Your task to perform on an android device: Go to eBay Image 0: 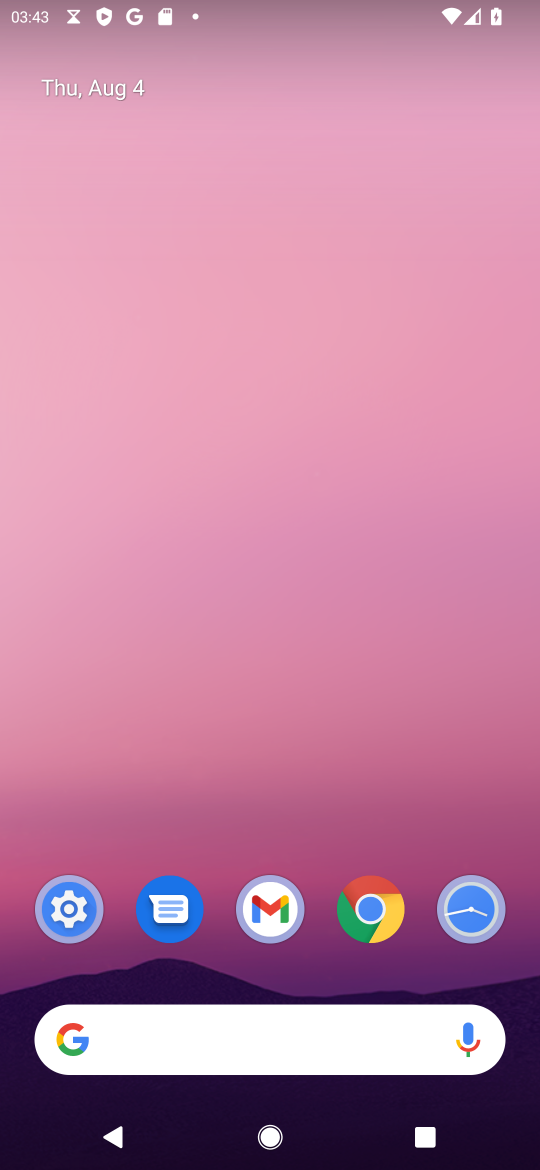
Step 0: click (370, 911)
Your task to perform on an android device: Go to eBay Image 1: 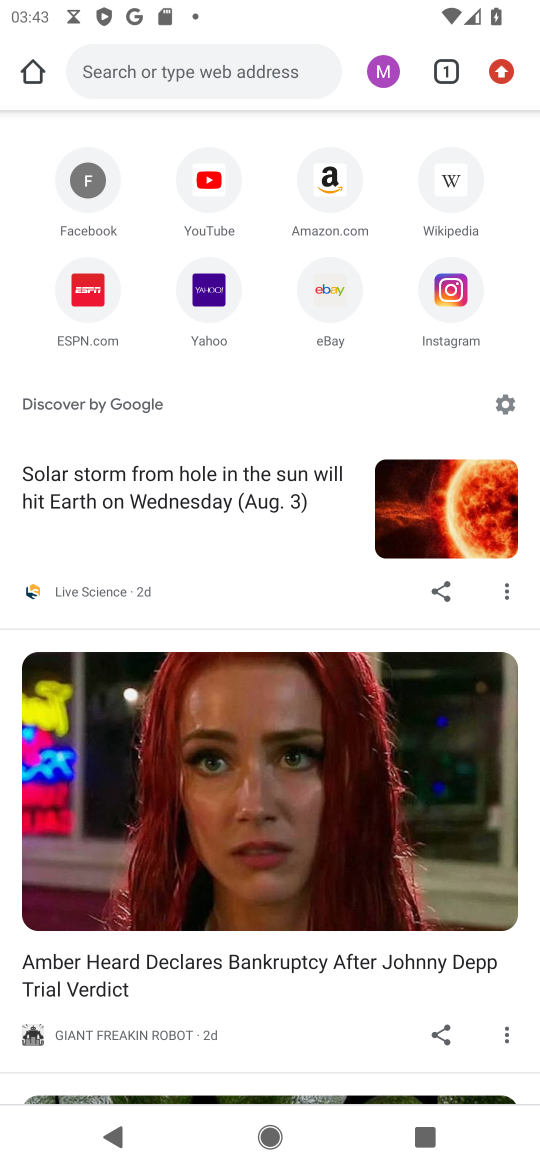
Step 1: drag from (441, 839) to (537, 524)
Your task to perform on an android device: Go to eBay Image 2: 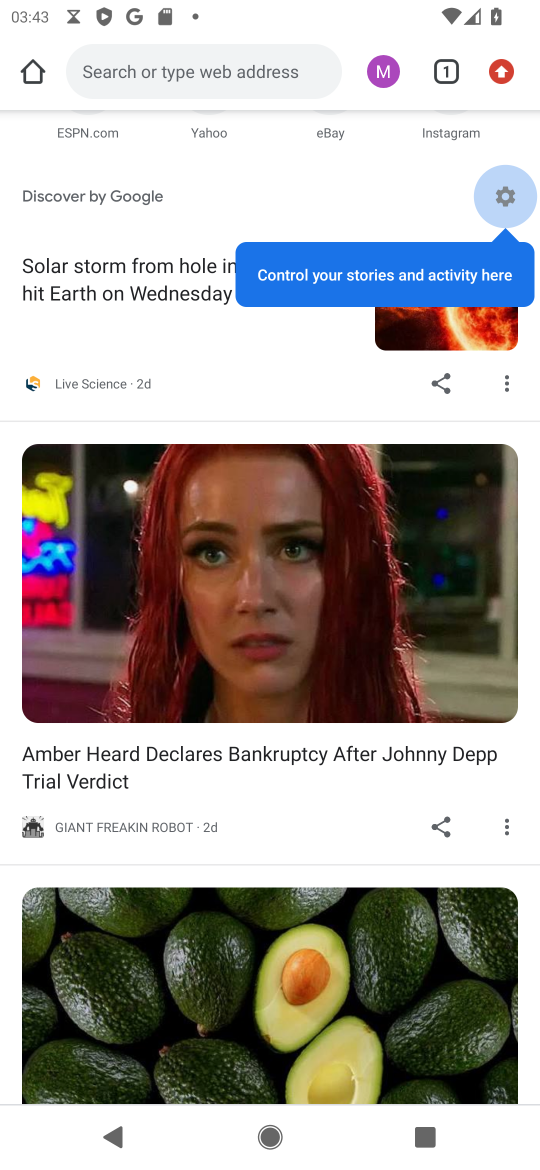
Step 2: drag from (268, 490) to (111, 781)
Your task to perform on an android device: Go to eBay Image 3: 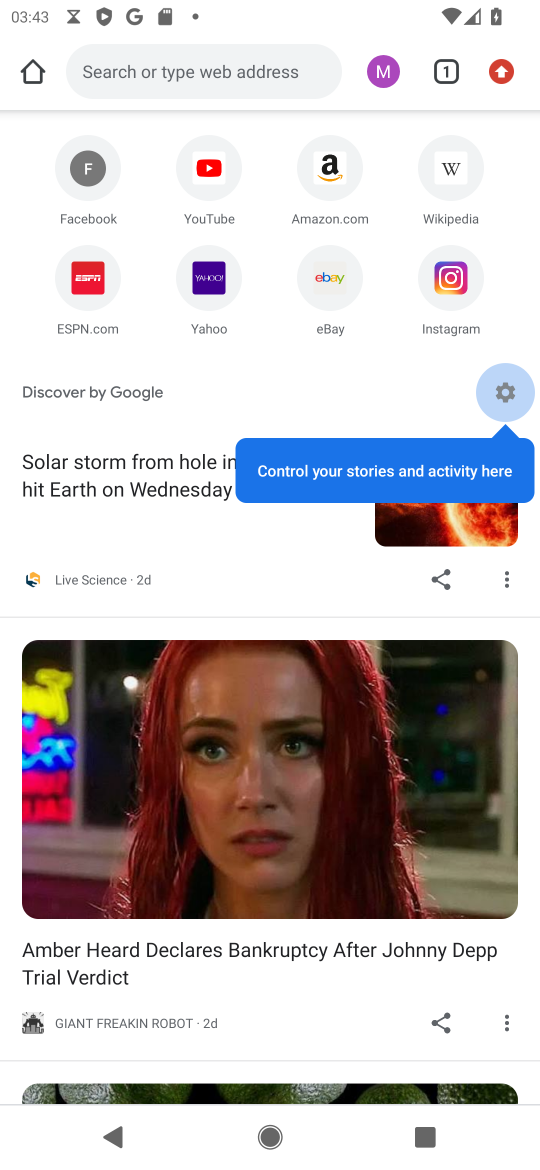
Step 3: click (331, 262)
Your task to perform on an android device: Go to eBay Image 4: 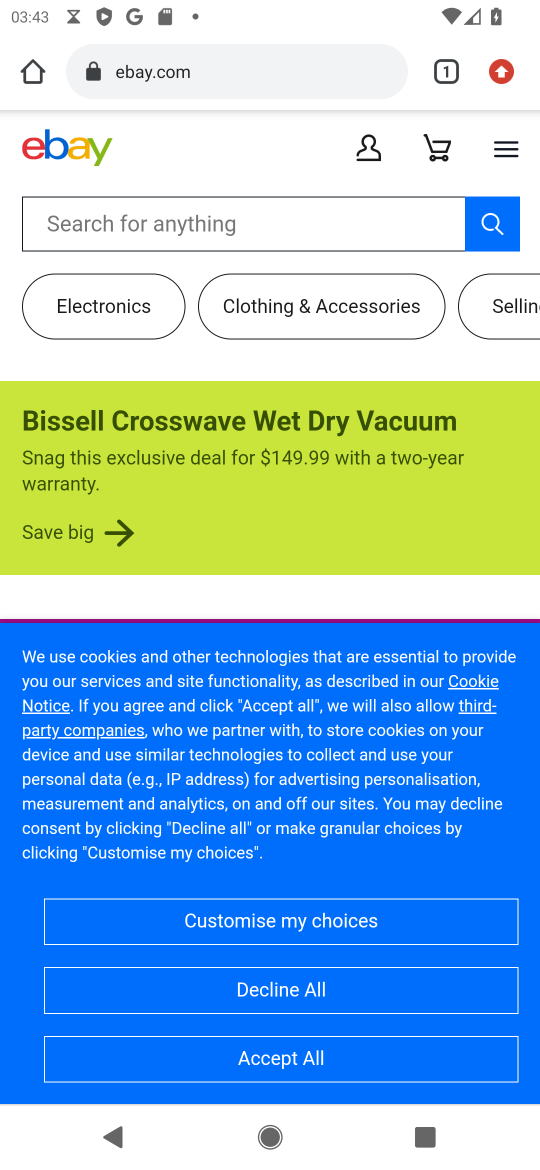
Step 4: task complete